Your task to perform on an android device: Open calendar and show me the third week of next month Image 0: 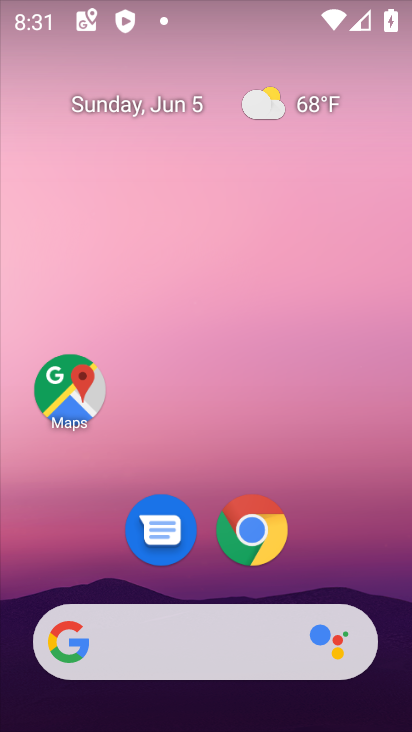
Step 0: drag from (394, 629) to (398, 68)
Your task to perform on an android device: Open calendar and show me the third week of next month Image 1: 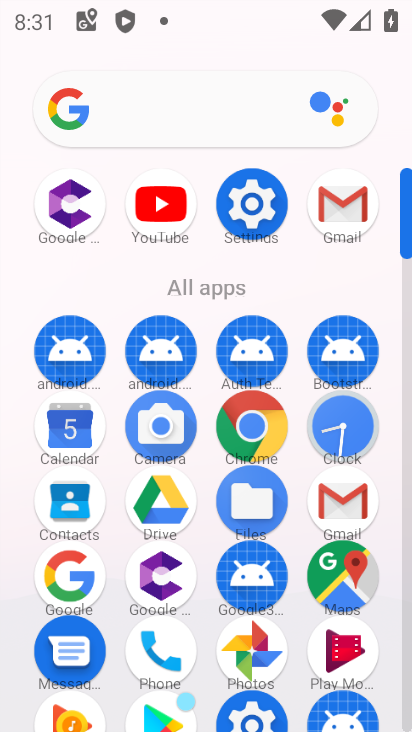
Step 1: click (408, 696)
Your task to perform on an android device: Open calendar and show me the third week of next month Image 2: 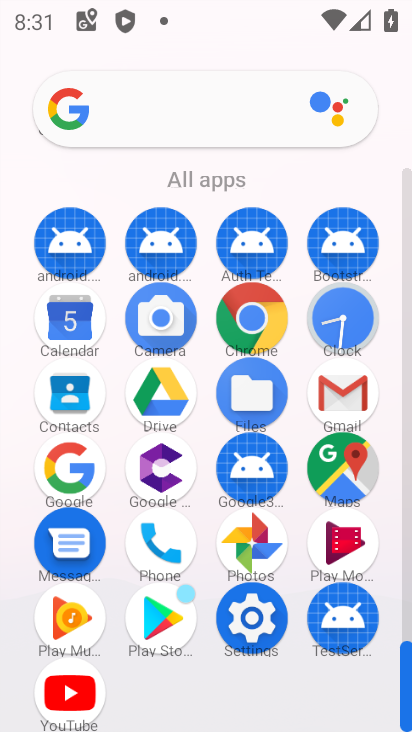
Step 2: click (65, 313)
Your task to perform on an android device: Open calendar and show me the third week of next month Image 3: 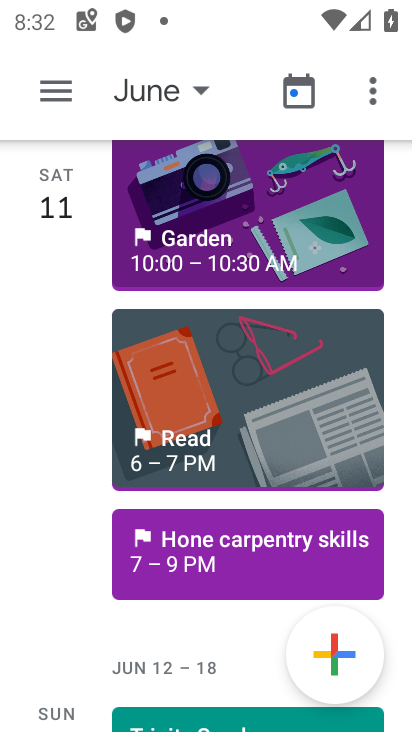
Step 3: click (60, 89)
Your task to perform on an android device: Open calendar and show me the third week of next month Image 4: 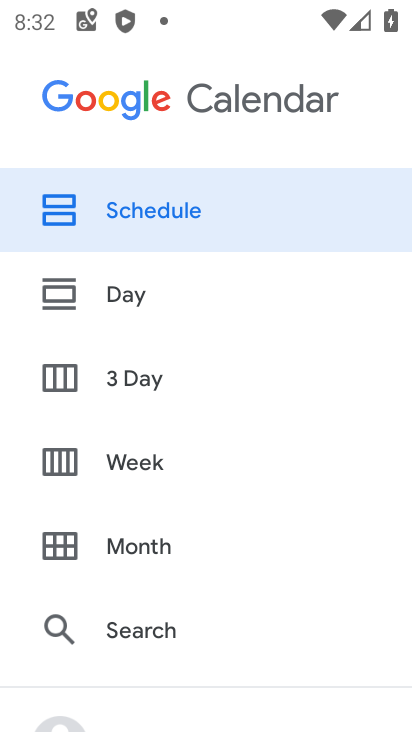
Step 4: click (145, 471)
Your task to perform on an android device: Open calendar and show me the third week of next month Image 5: 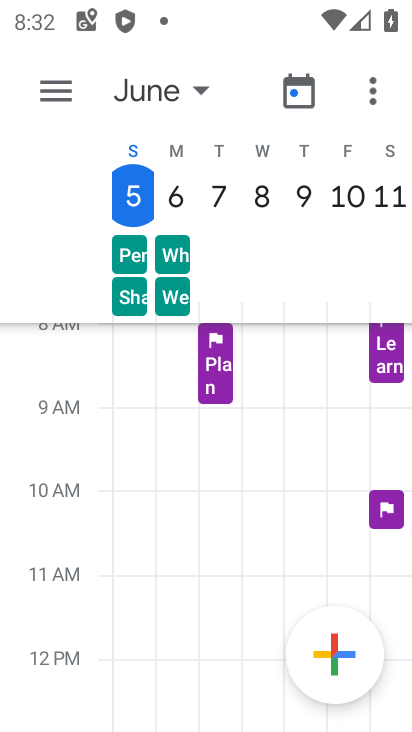
Step 5: click (198, 91)
Your task to perform on an android device: Open calendar and show me the third week of next month Image 6: 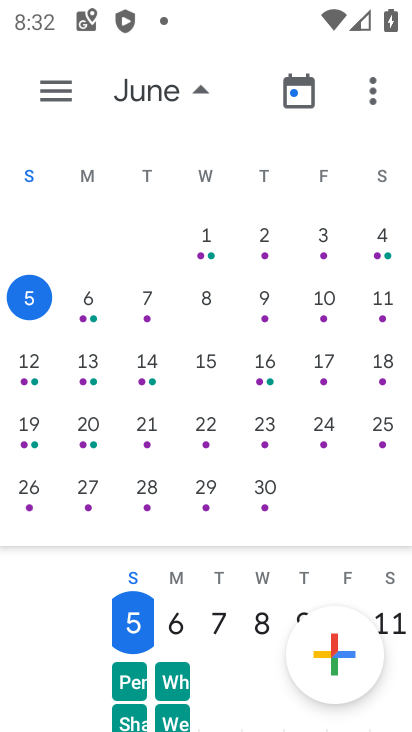
Step 6: drag from (385, 307) to (32, 301)
Your task to perform on an android device: Open calendar and show me the third week of next month Image 7: 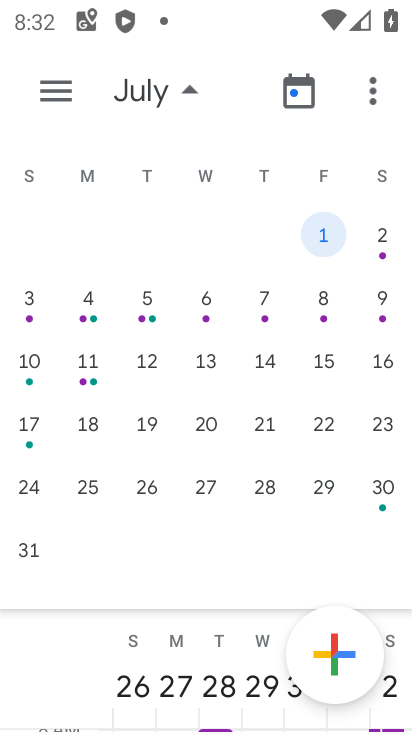
Step 7: click (24, 430)
Your task to perform on an android device: Open calendar and show me the third week of next month Image 8: 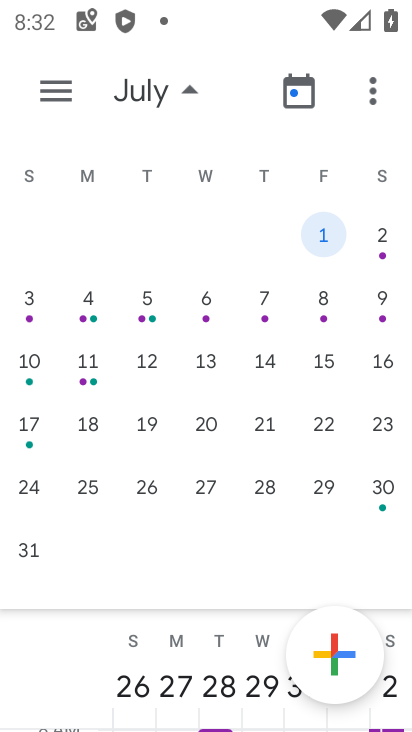
Step 8: click (32, 428)
Your task to perform on an android device: Open calendar and show me the third week of next month Image 9: 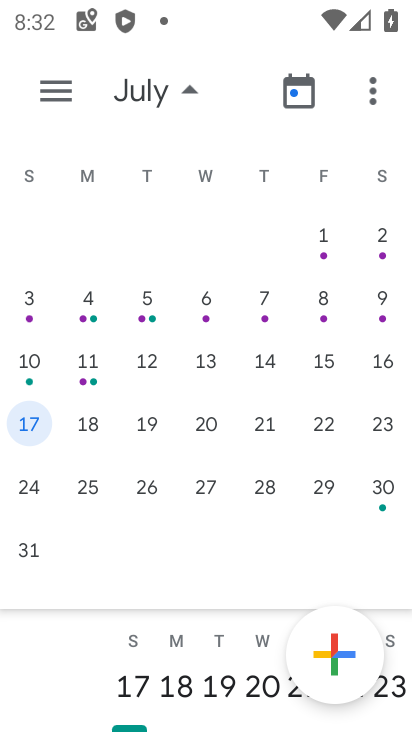
Step 9: task complete